Your task to perform on an android device: move a message to another label in the gmail app Image 0: 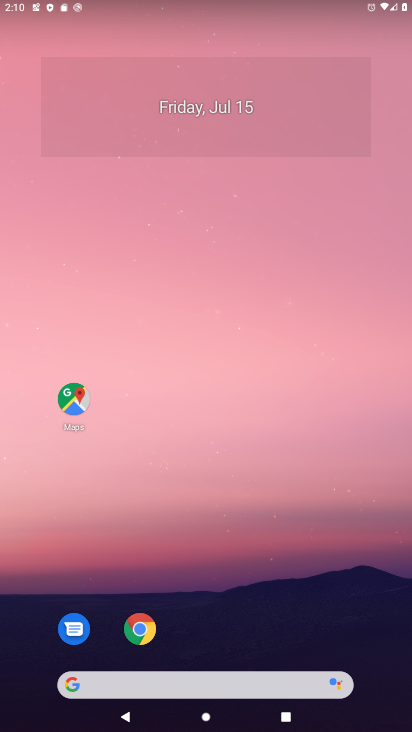
Step 0: drag from (310, 574) to (204, 17)
Your task to perform on an android device: move a message to another label in the gmail app Image 1: 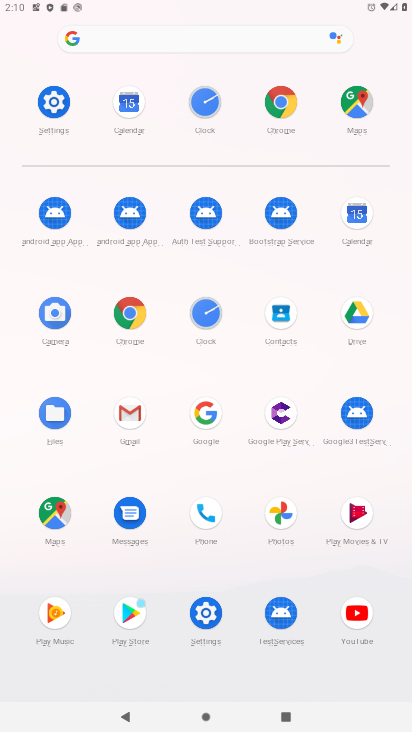
Step 1: click (131, 414)
Your task to perform on an android device: move a message to another label in the gmail app Image 2: 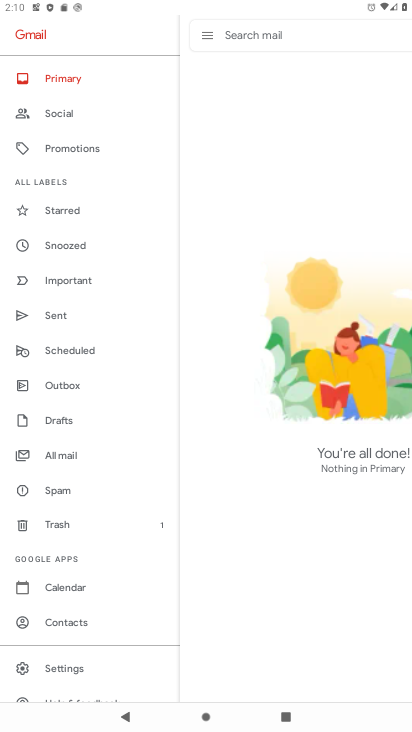
Step 2: drag from (99, 637) to (153, 283)
Your task to perform on an android device: move a message to another label in the gmail app Image 3: 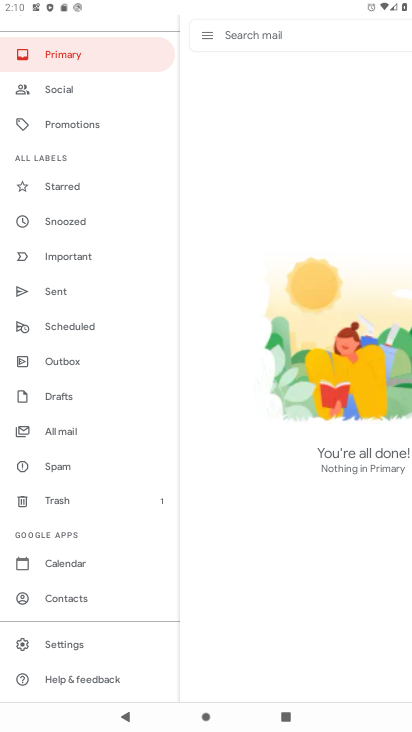
Step 3: click (61, 428)
Your task to perform on an android device: move a message to another label in the gmail app Image 4: 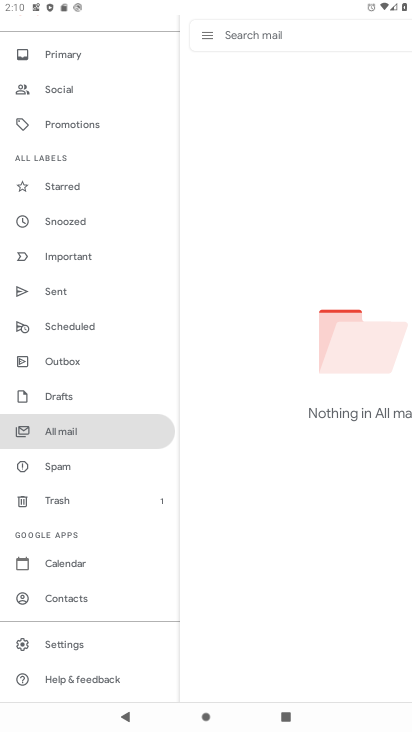
Step 4: task complete